Your task to perform on an android device: turn pop-ups off in chrome Image 0: 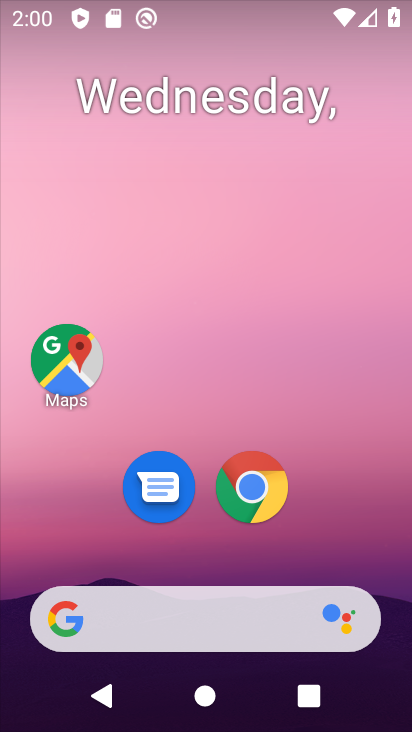
Step 0: click (245, 489)
Your task to perform on an android device: turn pop-ups off in chrome Image 1: 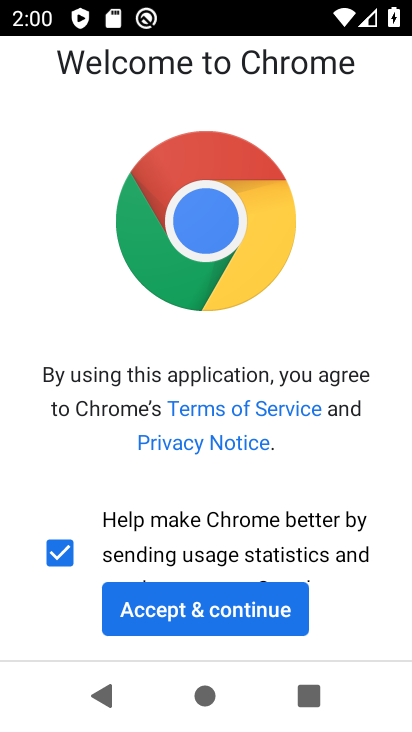
Step 1: click (192, 620)
Your task to perform on an android device: turn pop-ups off in chrome Image 2: 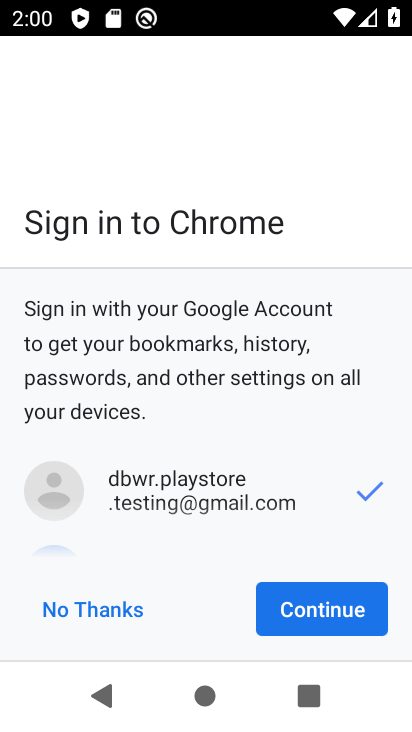
Step 2: click (308, 607)
Your task to perform on an android device: turn pop-ups off in chrome Image 3: 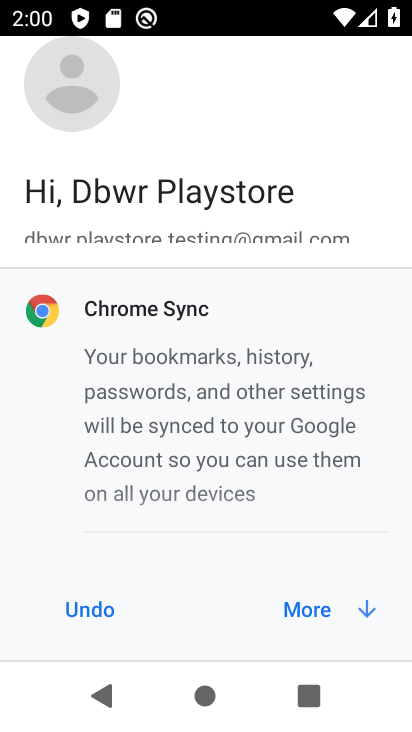
Step 3: click (359, 611)
Your task to perform on an android device: turn pop-ups off in chrome Image 4: 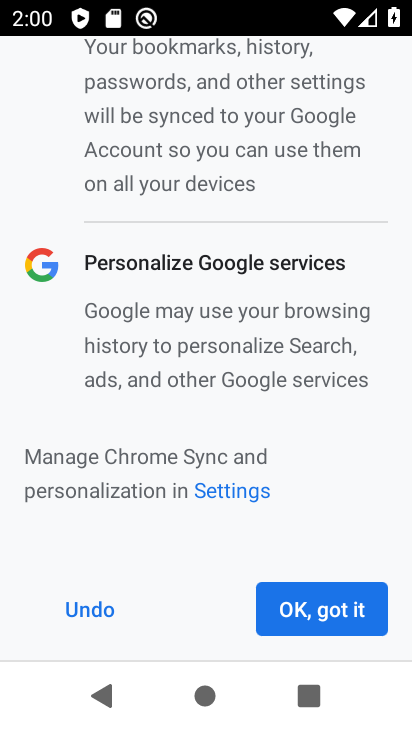
Step 4: click (359, 611)
Your task to perform on an android device: turn pop-ups off in chrome Image 5: 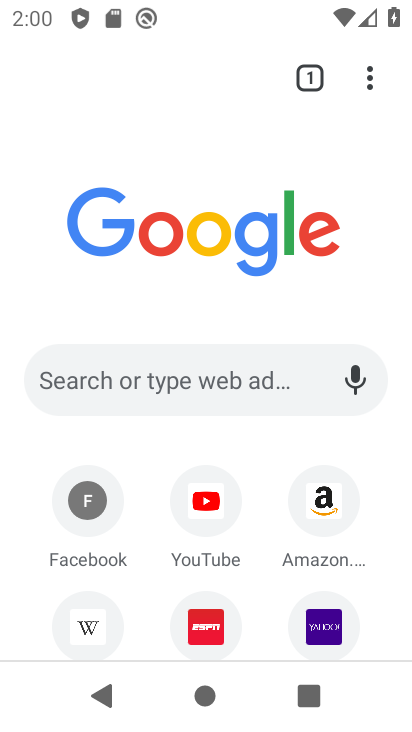
Step 5: click (367, 82)
Your task to perform on an android device: turn pop-ups off in chrome Image 6: 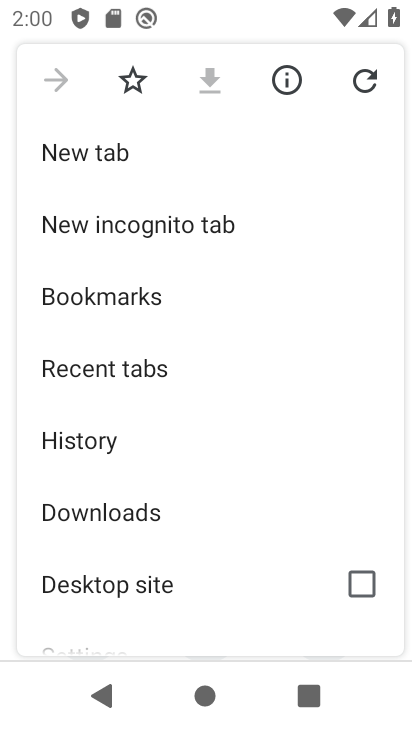
Step 6: drag from (218, 613) to (242, 47)
Your task to perform on an android device: turn pop-ups off in chrome Image 7: 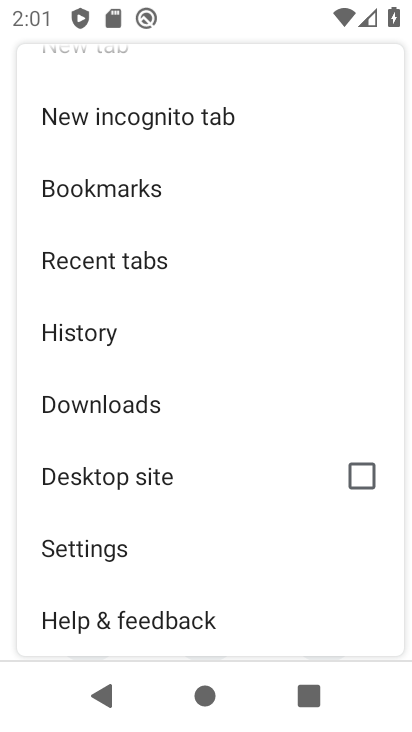
Step 7: click (134, 575)
Your task to perform on an android device: turn pop-ups off in chrome Image 8: 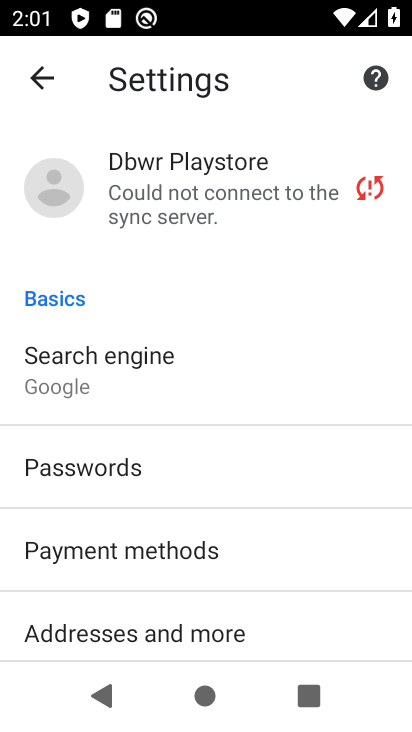
Step 8: drag from (261, 623) to (270, 76)
Your task to perform on an android device: turn pop-ups off in chrome Image 9: 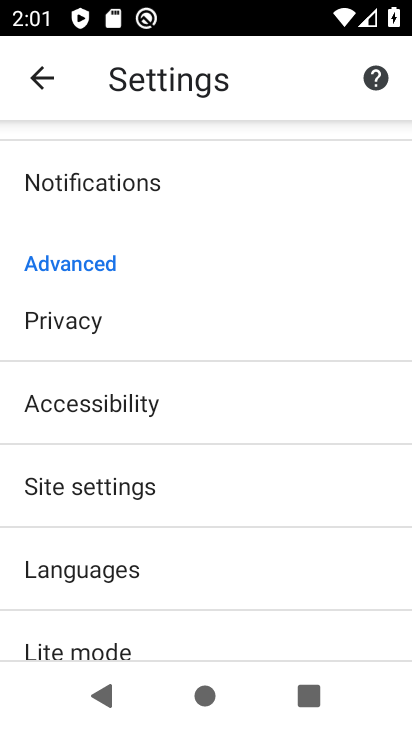
Step 9: click (168, 496)
Your task to perform on an android device: turn pop-ups off in chrome Image 10: 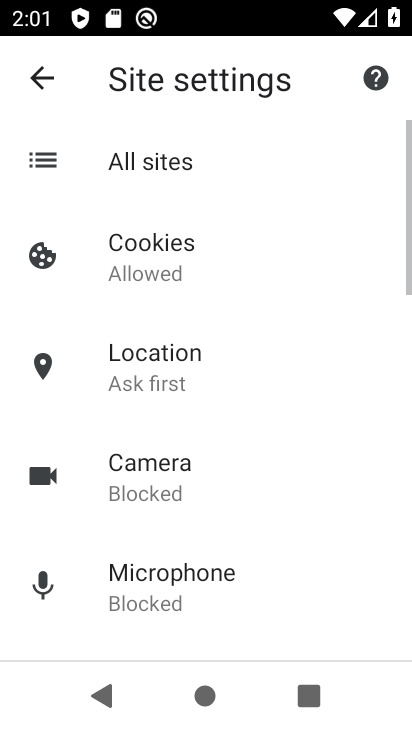
Step 10: drag from (220, 608) to (222, 78)
Your task to perform on an android device: turn pop-ups off in chrome Image 11: 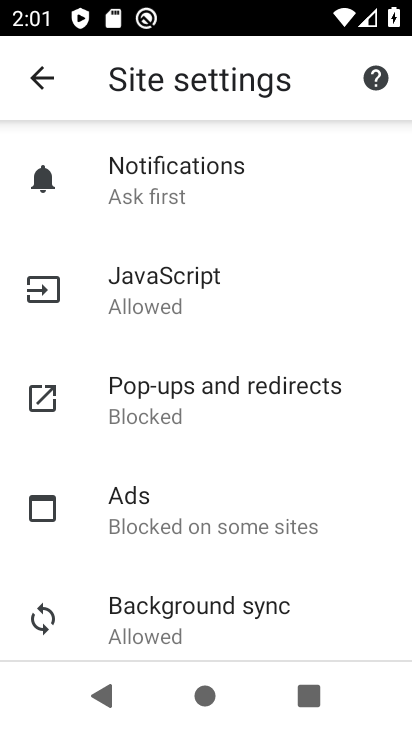
Step 11: click (212, 397)
Your task to perform on an android device: turn pop-ups off in chrome Image 12: 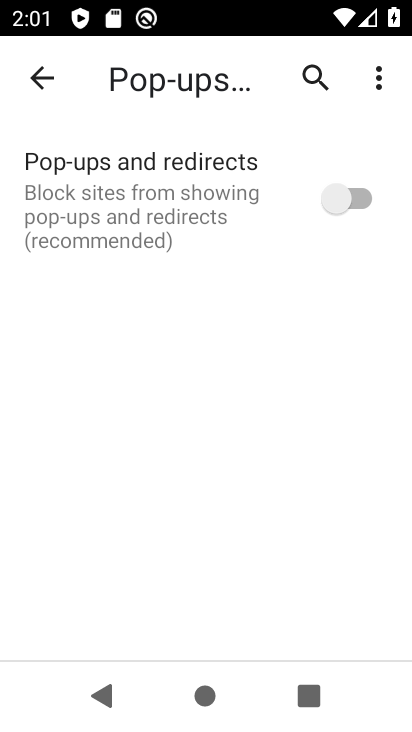
Step 12: task complete